Your task to perform on an android device: Is it going to rain this weekend? Image 0: 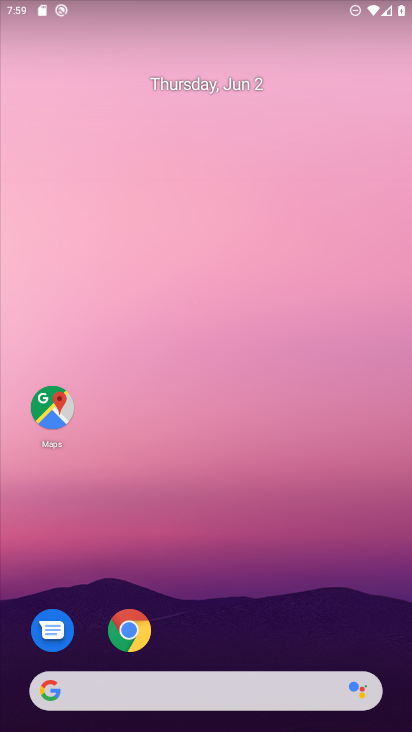
Step 0: click (136, 704)
Your task to perform on an android device: Is it going to rain this weekend? Image 1: 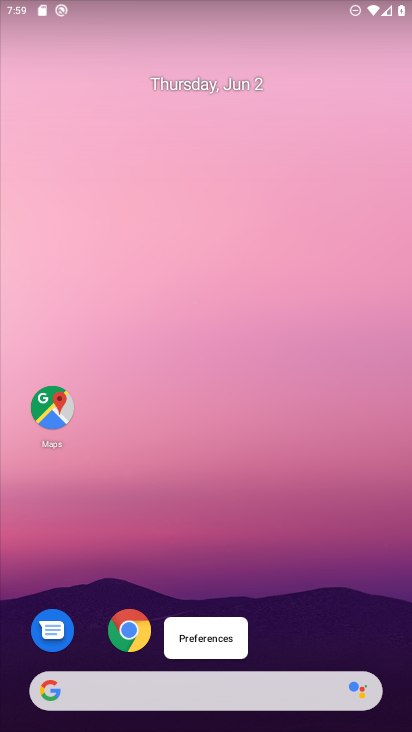
Step 1: click (103, 694)
Your task to perform on an android device: Is it going to rain this weekend? Image 2: 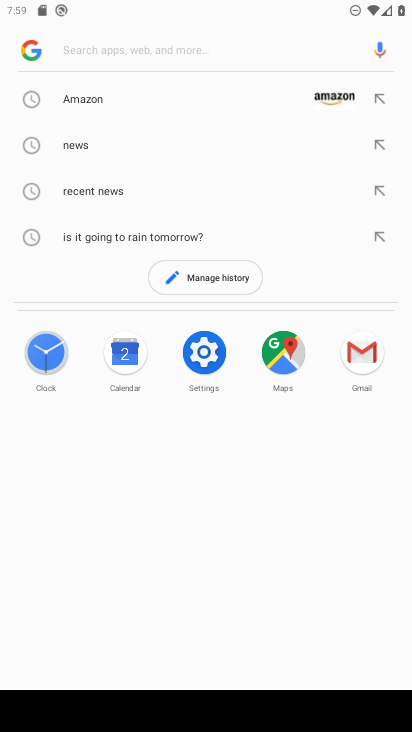
Step 2: type "weather this weekend"
Your task to perform on an android device: Is it going to rain this weekend? Image 3: 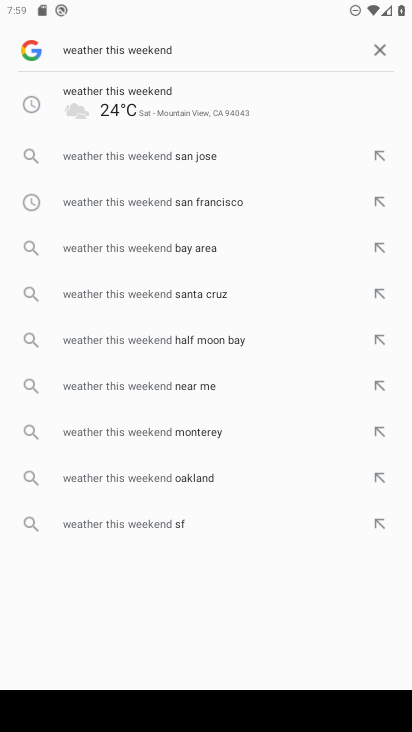
Step 3: click (175, 121)
Your task to perform on an android device: Is it going to rain this weekend? Image 4: 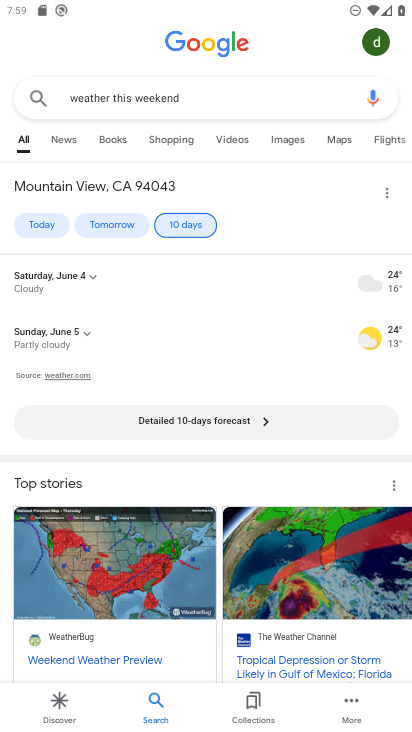
Step 4: click (224, 420)
Your task to perform on an android device: Is it going to rain this weekend? Image 5: 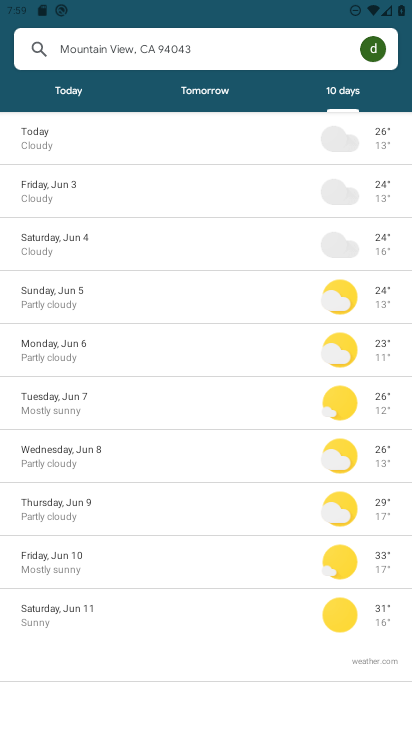
Step 5: click (112, 252)
Your task to perform on an android device: Is it going to rain this weekend? Image 6: 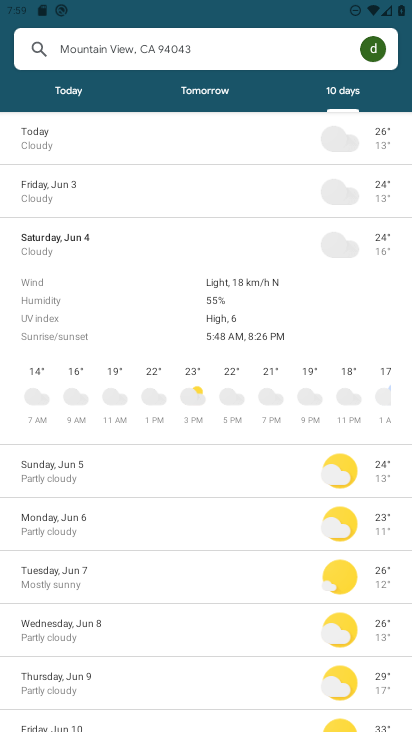
Step 6: click (151, 473)
Your task to perform on an android device: Is it going to rain this weekend? Image 7: 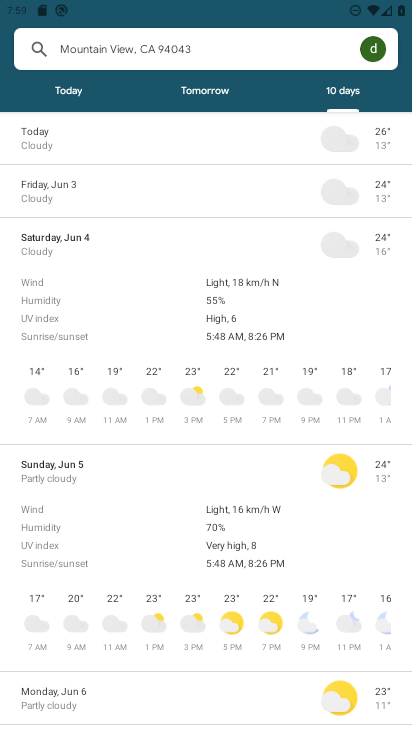
Step 7: task complete